Your task to perform on an android device: change the upload size in google photos Image 0: 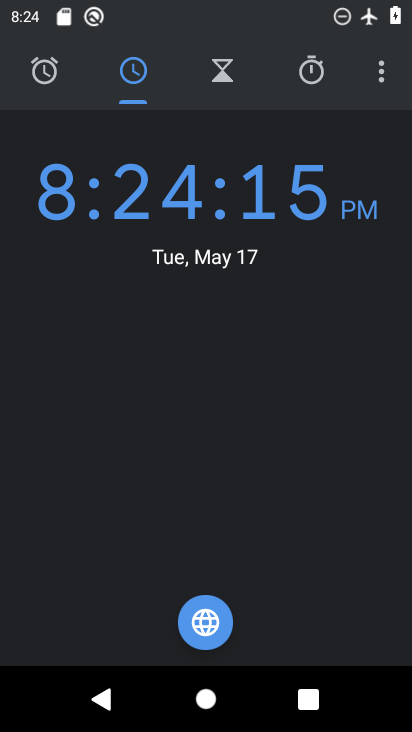
Step 0: press home button
Your task to perform on an android device: change the upload size in google photos Image 1: 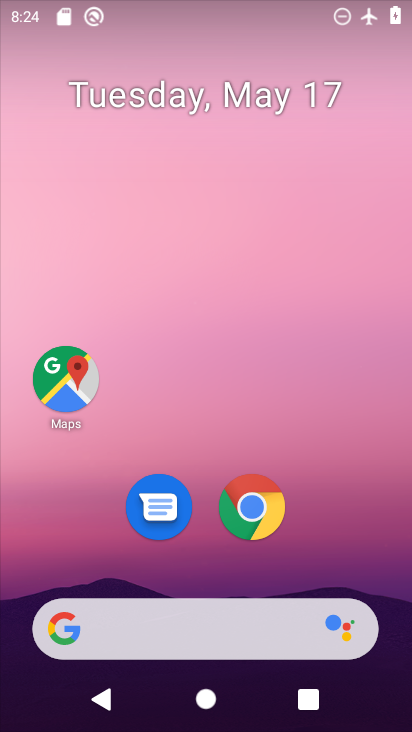
Step 1: drag from (344, 579) to (293, 18)
Your task to perform on an android device: change the upload size in google photos Image 2: 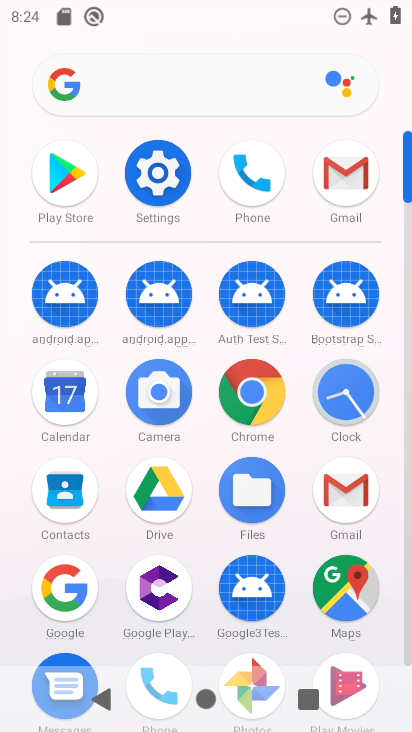
Step 2: click (411, 543)
Your task to perform on an android device: change the upload size in google photos Image 3: 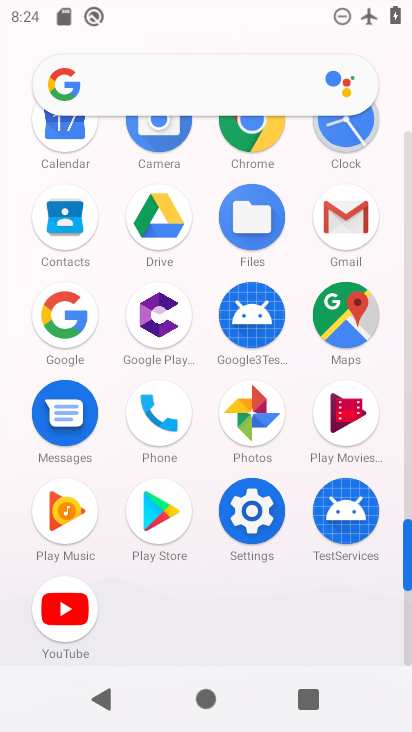
Step 3: click (249, 423)
Your task to perform on an android device: change the upload size in google photos Image 4: 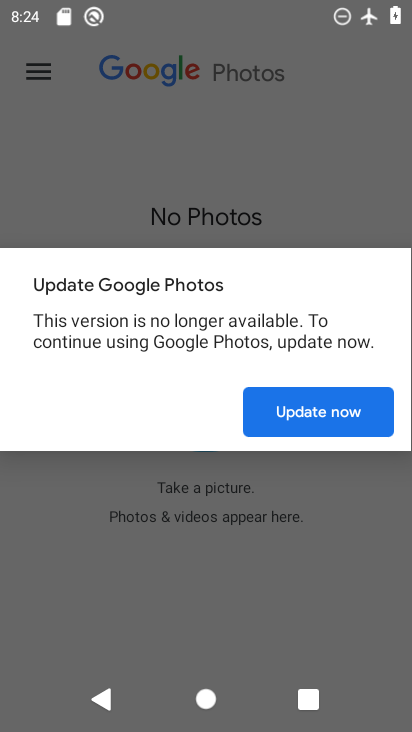
Step 4: click (278, 418)
Your task to perform on an android device: change the upload size in google photos Image 5: 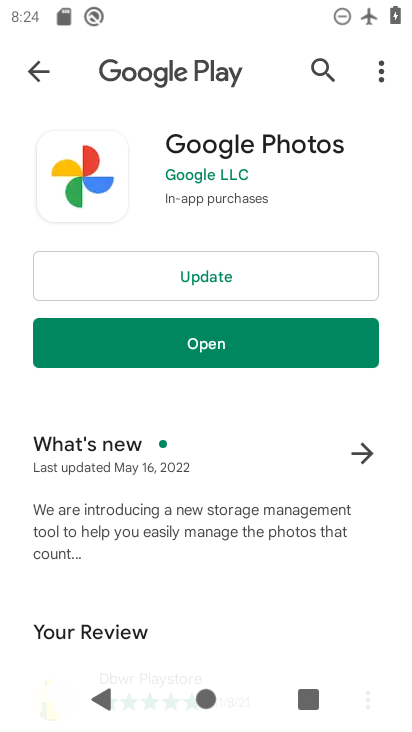
Step 5: click (207, 281)
Your task to perform on an android device: change the upload size in google photos Image 6: 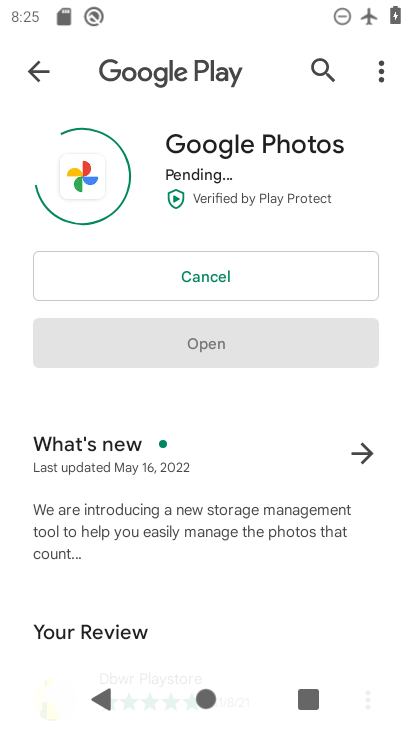
Step 6: click (33, 74)
Your task to perform on an android device: change the upload size in google photos Image 7: 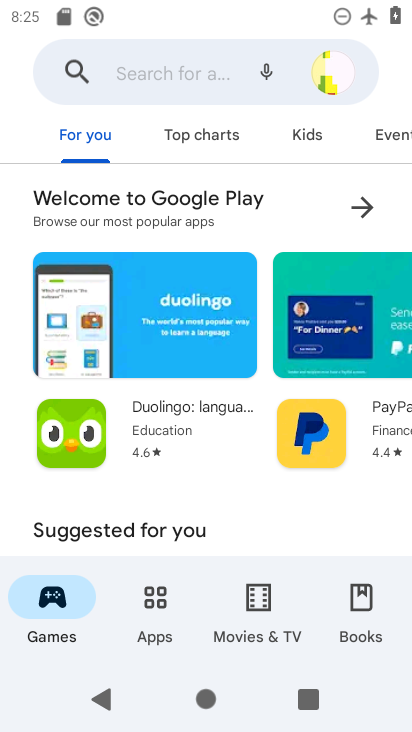
Step 7: click (329, 71)
Your task to perform on an android device: change the upload size in google photos Image 8: 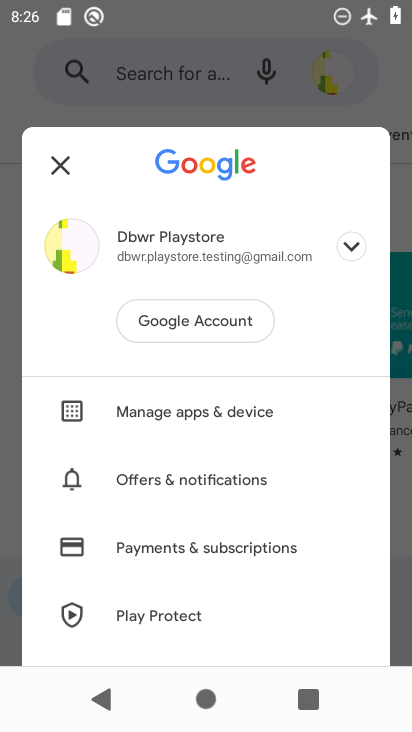
Step 8: drag from (225, 563) to (236, 370)
Your task to perform on an android device: change the upload size in google photos Image 9: 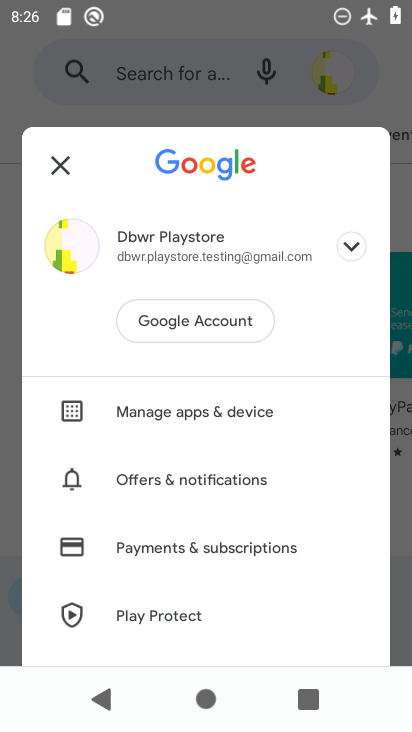
Step 9: drag from (343, 596) to (336, 449)
Your task to perform on an android device: change the upload size in google photos Image 10: 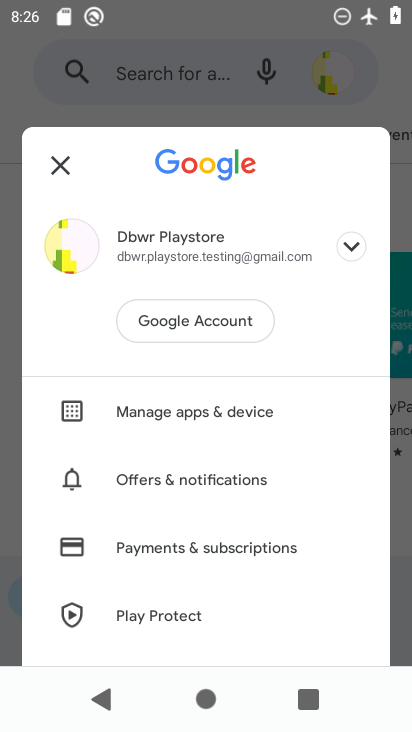
Step 10: click (205, 413)
Your task to perform on an android device: change the upload size in google photos Image 11: 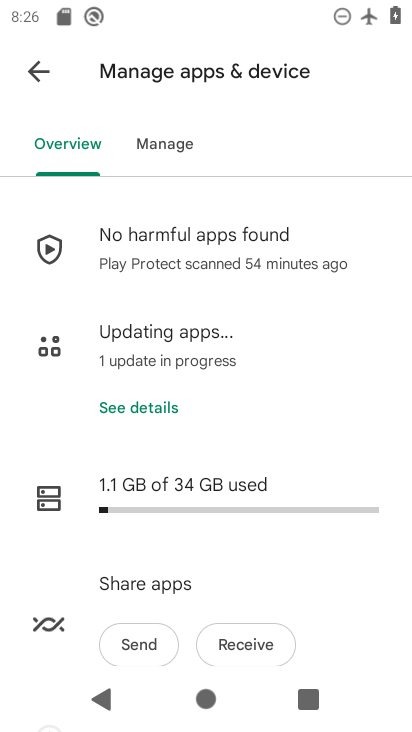
Step 11: click (150, 408)
Your task to perform on an android device: change the upload size in google photos Image 12: 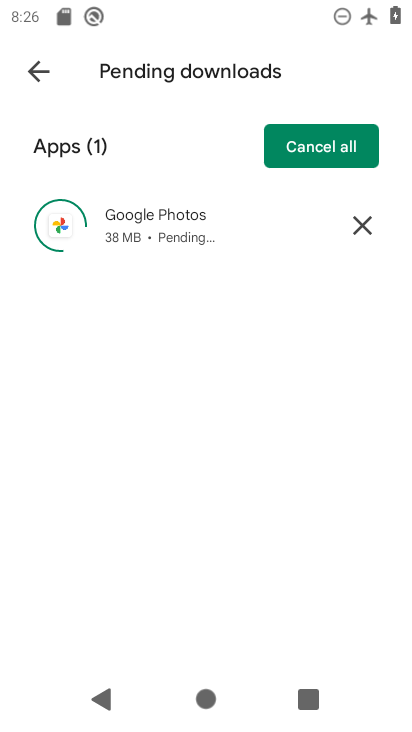
Step 12: click (39, 71)
Your task to perform on an android device: change the upload size in google photos Image 13: 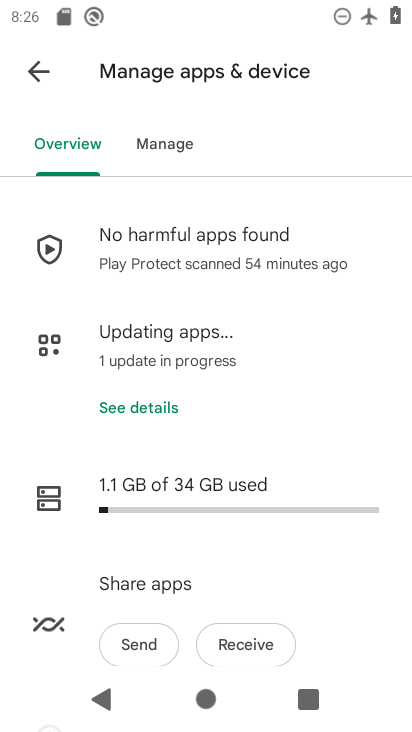
Step 13: click (39, 71)
Your task to perform on an android device: change the upload size in google photos Image 14: 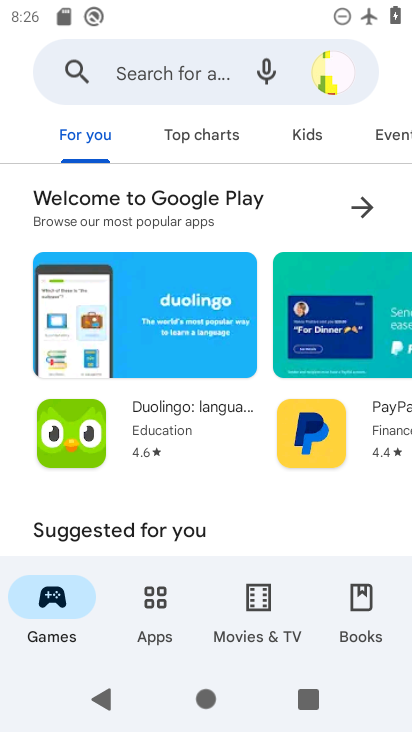
Step 14: click (158, 73)
Your task to perform on an android device: change the upload size in google photos Image 15: 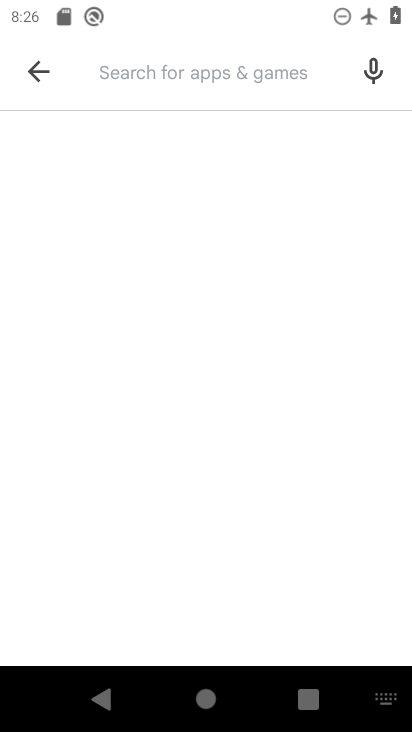
Step 15: click (54, 64)
Your task to perform on an android device: change the upload size in google photos Image 16: 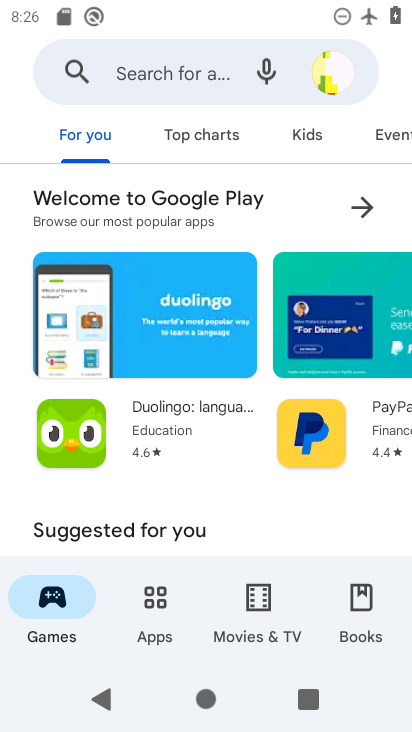
Step 16: press back button
Your task to perform on an android device: change the upload size in google photos Image 17: 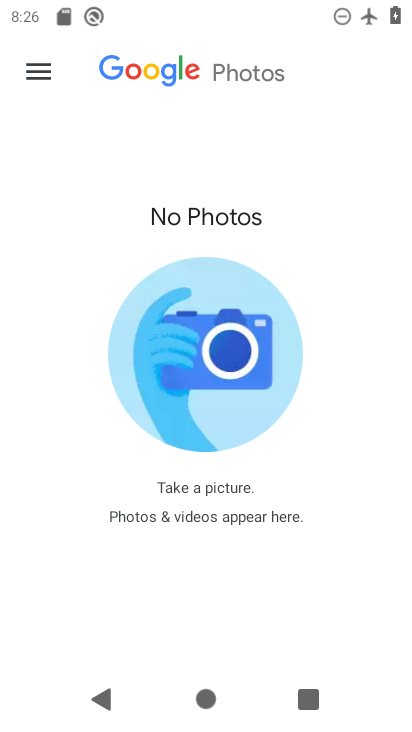
Step 17: click (39, 70)
Your task to perform on an android device: change the upload size in google photos Image 18: 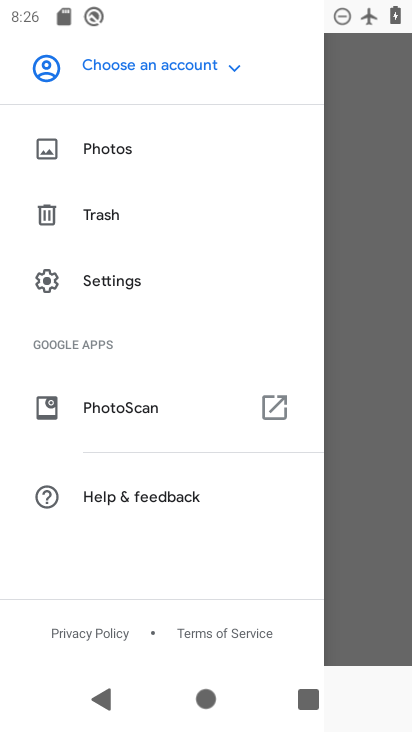
Step 18: click (104, 276)
Your task to perform on an android device: change the upload size in google photos Image 19: 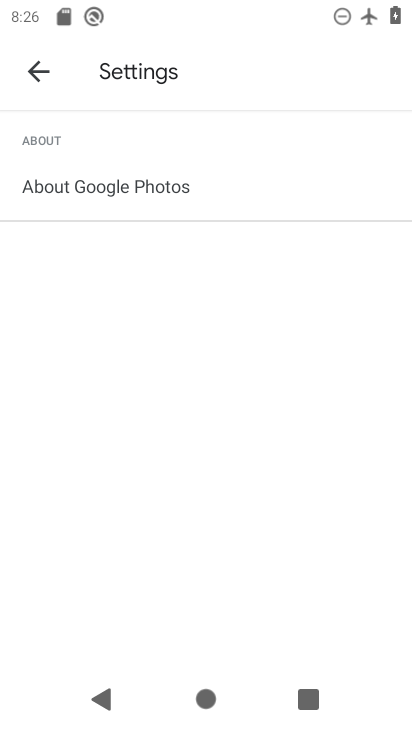
Step 19: task complete